Your task to perform on an android device: Show me the alarms in the clock app Image 0: 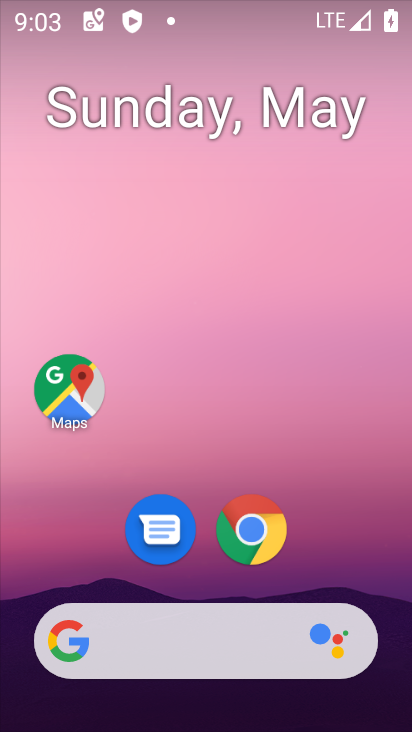
Step 0: drag from (312, 542) to (205, 114)
Your task to perform on an android device: Show me the alarms in the clock app Image 1: 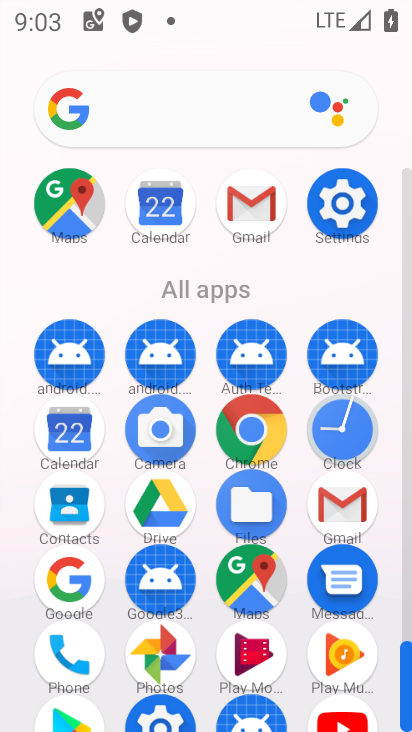
Step 1: click (339, 424)
Your task to perform on an android device: Show me the alarms in the clock app Image 2: 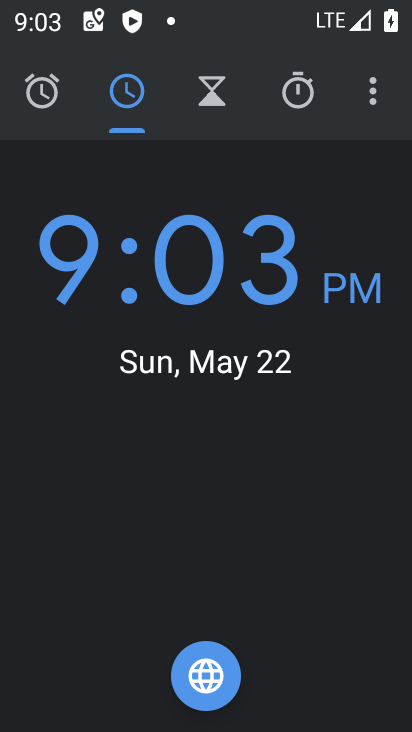
Step 2: click (46, 103)
Your task to perform on an android device: Show me the alarms in the clock app Image 3: 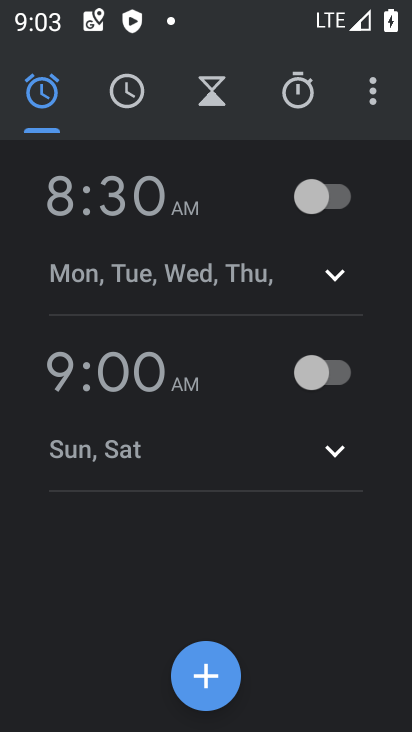
Step 3: task complete